Your task to perform on an android device: turn on the 24-hour format for clock Image 0: 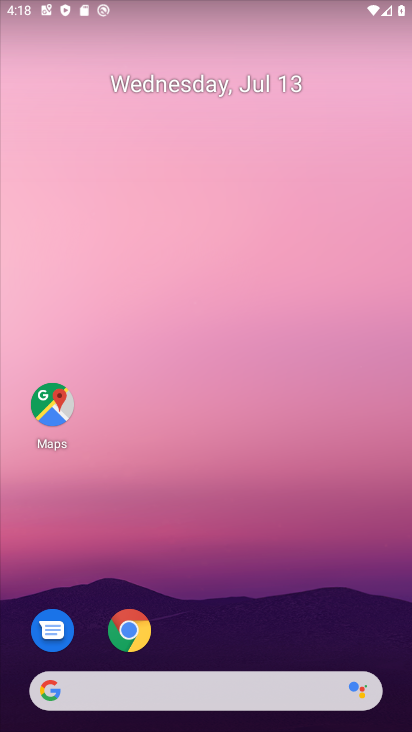
Step 0: drag from (221, 637) to (384, 63)
Your task to perform on an android device: turn on the 24-hour format for clock Image 1: 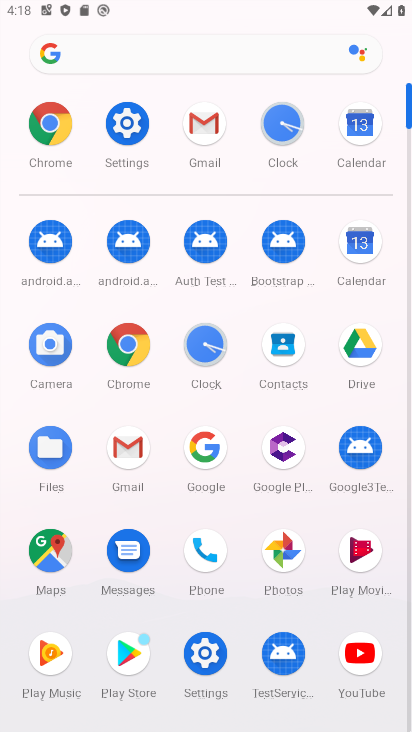
Step 1: click (133, 345)
Your task to perform on an android device: turn on the 24-hour format for clock Image 2: 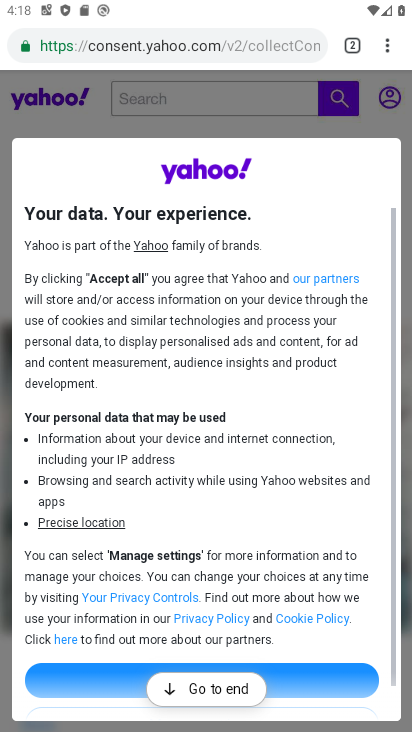
Step 2: press home button
Your task to perform on an android device: turn on the 24-hour format for clock Image 3: 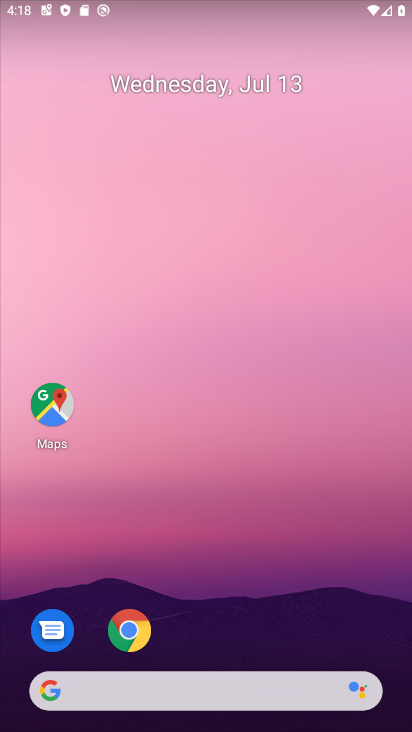
Step 3: drag from (294, 668) to (293, 227)
Your task to perform on an android device: turn on the 24-hour format for clock Image 4: 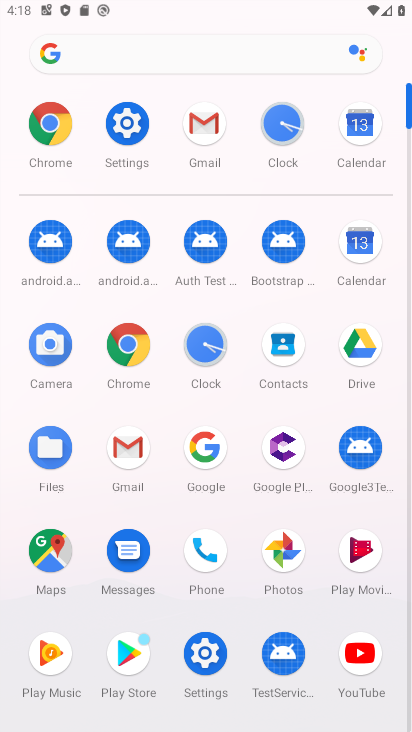
Step 4: click (211, 355)
Your task to perform on an android device: turn on the 24-hour format for clock Image 5: 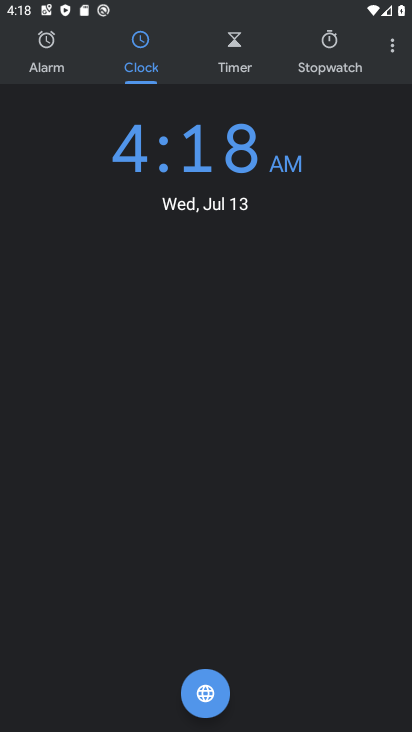
Step 5: drag from (389, 36) to (324, 225)
Your task to perform on an android device: turn on the 24-hour format for clock Image 6: 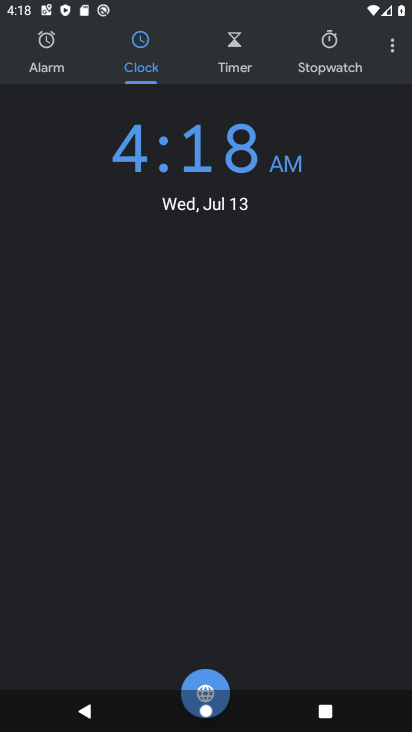
Step 6: drag from (389, 49) to (318, 95)
Your task to perform on an android device: turn on the 24-hour format for clock Image 7: 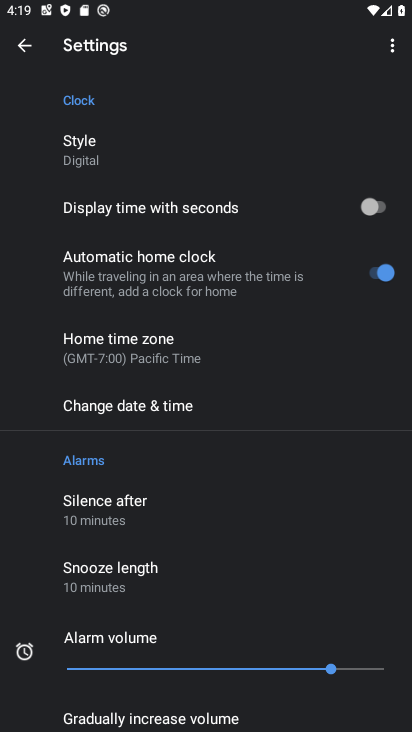
Step 7: click (154, 405)
Your task to perform on an android device: turn on the 24-hour format for clock Image 8: 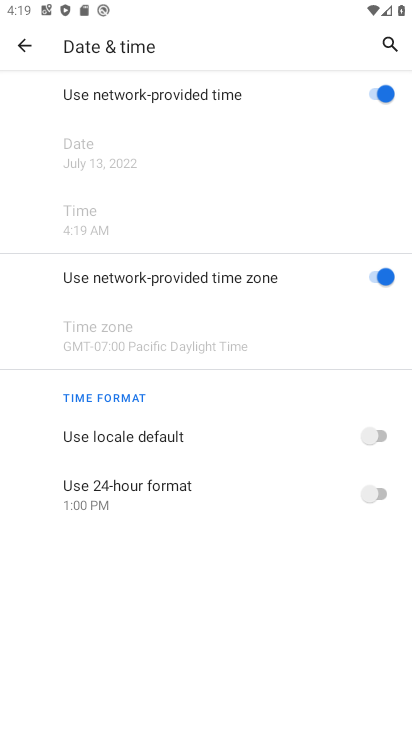
Step 8: click (374, 495)
Your task to perform on an android device: turn on the 24-hour format for clock Image 9: 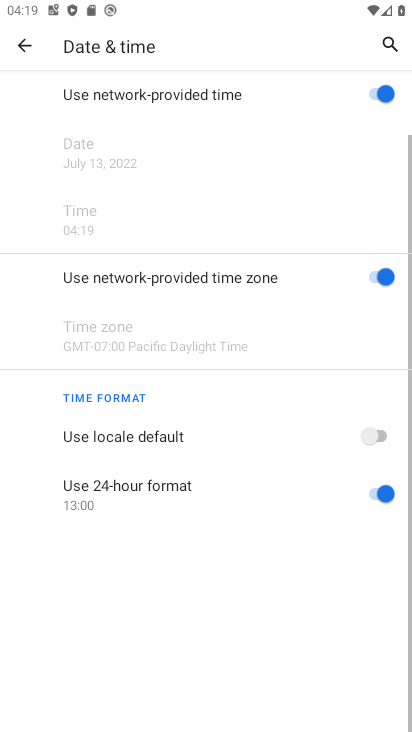
Step 9: task complete